Your task to perform on an android device: Is it going to rain today? Image 0: 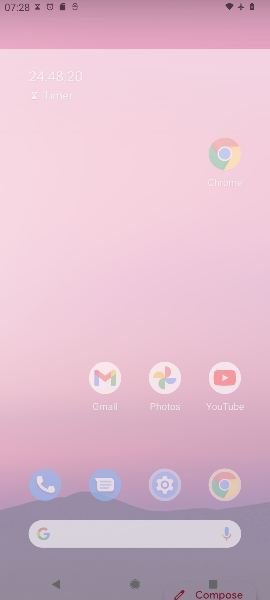
Step 0: press home button
Your task to perform on an android device: Is it going to rain today? Image 1: 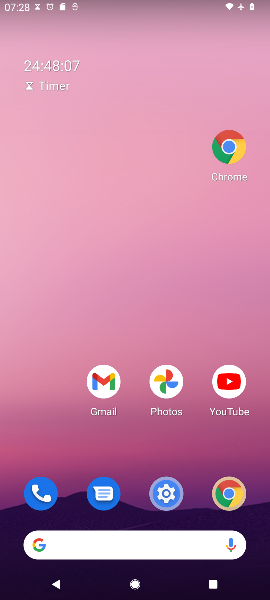
Step 1: click (33, 546)
Your task to perform on an android device: Is it going to rain today? Image 2: 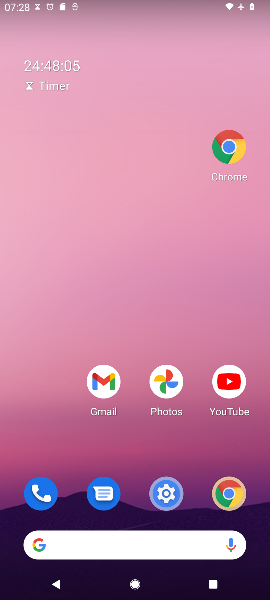
Step 2: click (38, 546)
Your task to perform on an android device: Is it going to rain today? Image 3: 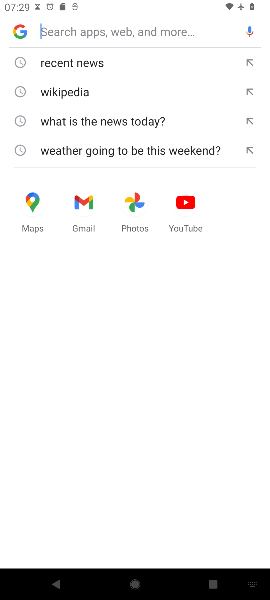
Step 3: type " rain today?"
Your task to perform on an android device: Is it going to rain today? Image 4: 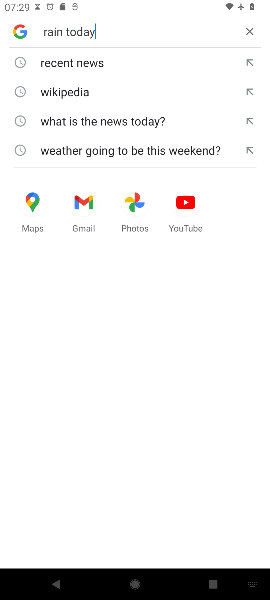
Step 4: press enter
Your task to perform on an android device: Is it going to rain today? Image 5: 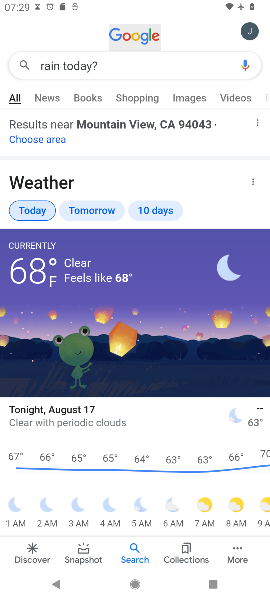
Step 5: task complete